Your task to perform on an android device: turn pop-ups off in chrome Image 0: 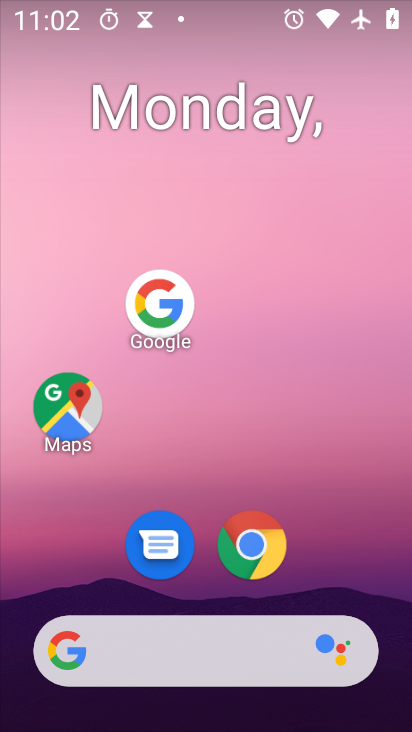
Step 0: press home button
Your task to perform on an android device: turn pop-ups off in chrome Image 1: 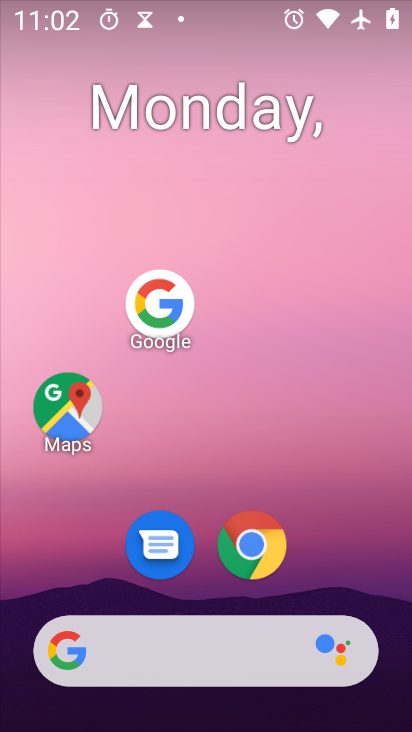
Step 1: click (259, 552)
Your task to perform on an android device: turn pop-ups off in chrome Image 2: 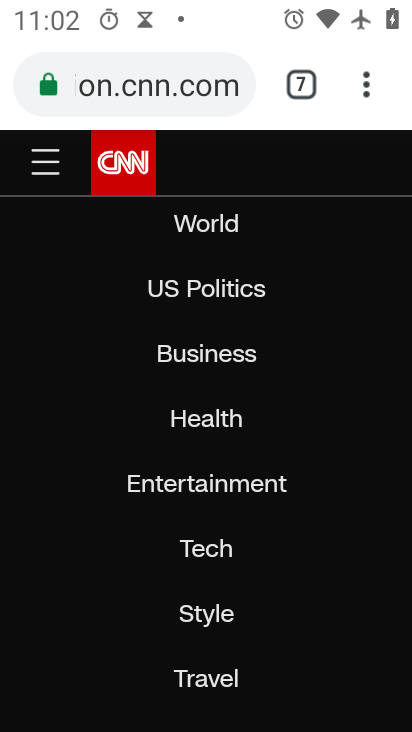
Step 2: drag from (360, 92) to (185, 610)
Your task to perform on an android device: turn pop-ups off in chrome Image 3: 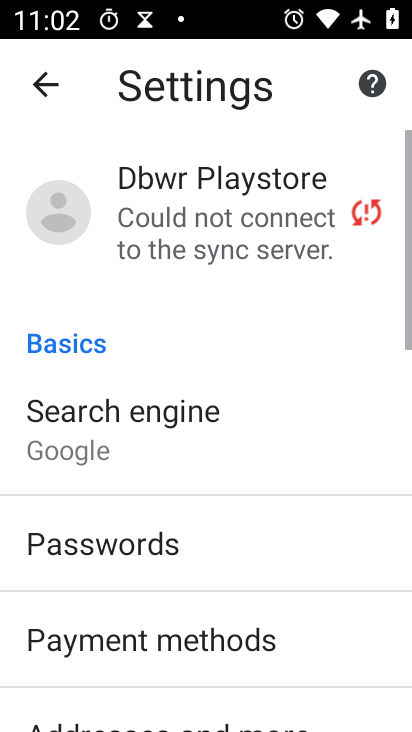
Step 3: drag from (195, 659) to (287, 307)
Your task to perform on an android device: turn pop-ups off in chrome Image 4: 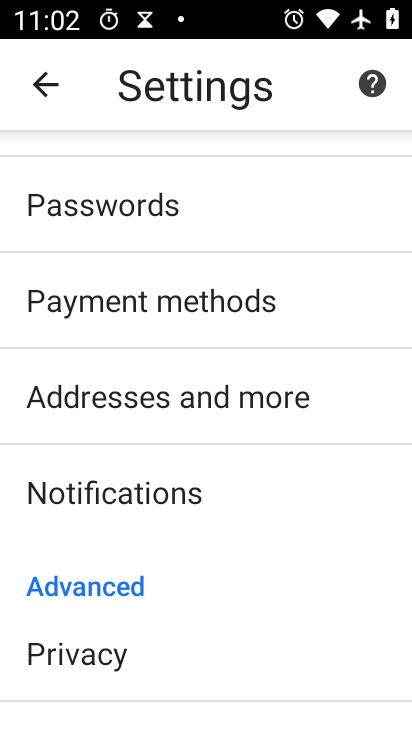
Step 4: drag from (204, 629) to (292, 218)
Your task to perform on an android device: turn pop-ups off in chrome Image 5: 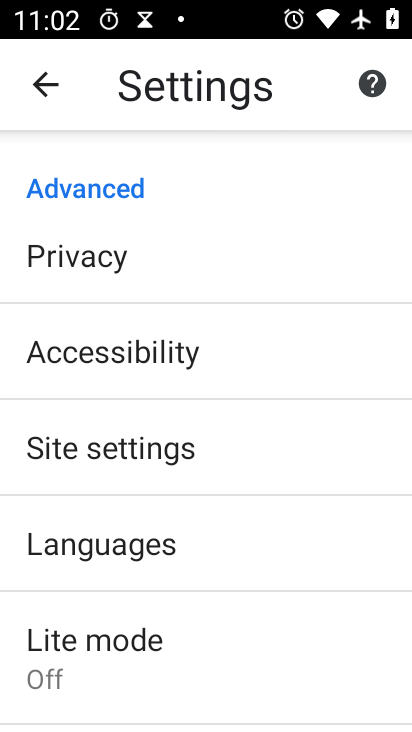
Step 5: click (130, 437)
Your task to perform on an android device: turn pop-ups off in chrome Image 6: 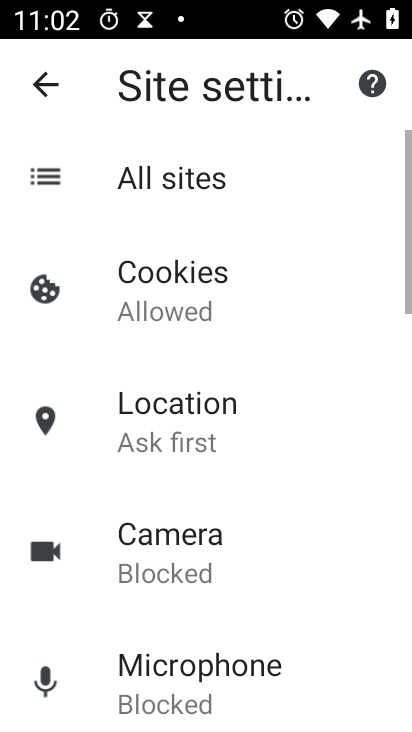
Step 6: drag from (187, 598) to (273, 124)
Your task to perform on an android device: turn pop-ups off in chrome Image 7: 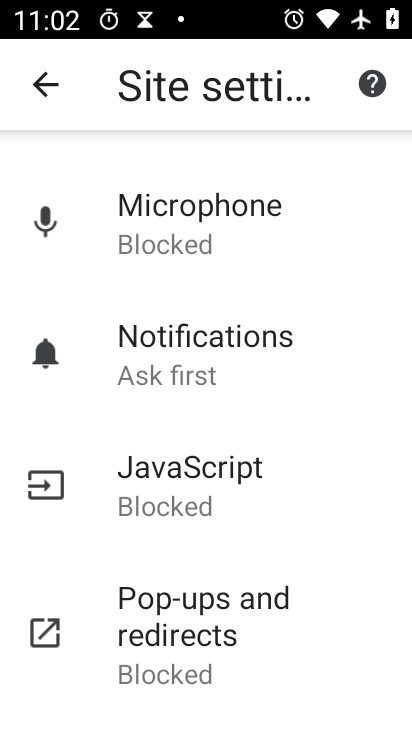
Step 7: click (201, 612)
Your task to perform on an android device: turn pop-ups off in chrome Image 8: 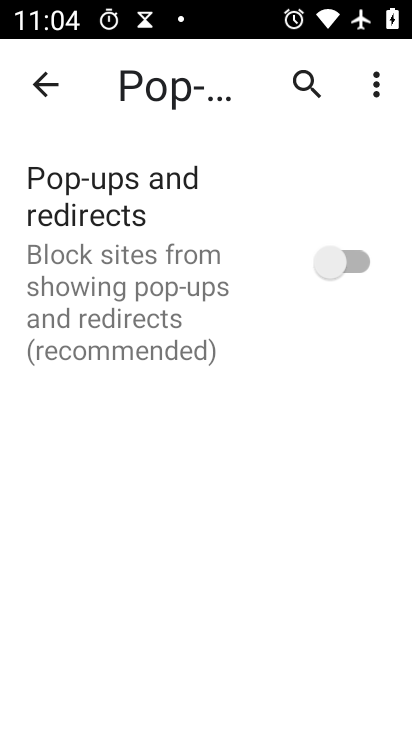
Step 8: task complete